Your task to perform on an android device: toggle notification dots Image 0: 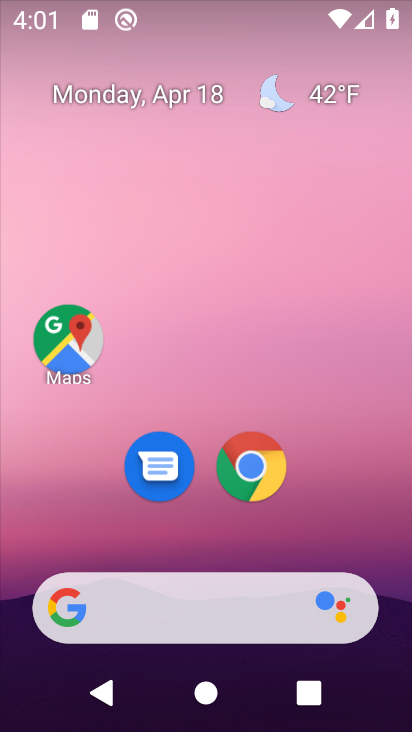
Step 0: drag from (390, 576) to (357, 46)
Your task to perform on an android device: toggle notification dots Image 1: 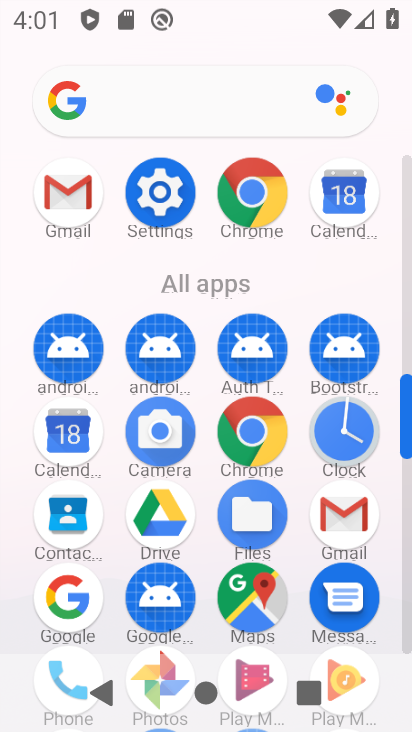
Step 1: click (401, 635)
Your task to perform on an android device: toggle notification dots Image 2: 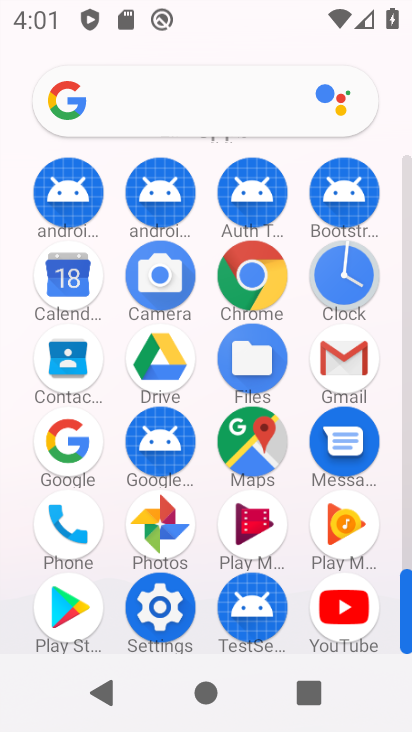
Step 2: click (160, 606)
Your task to perform on an android device: toggle notification dots Image 3: 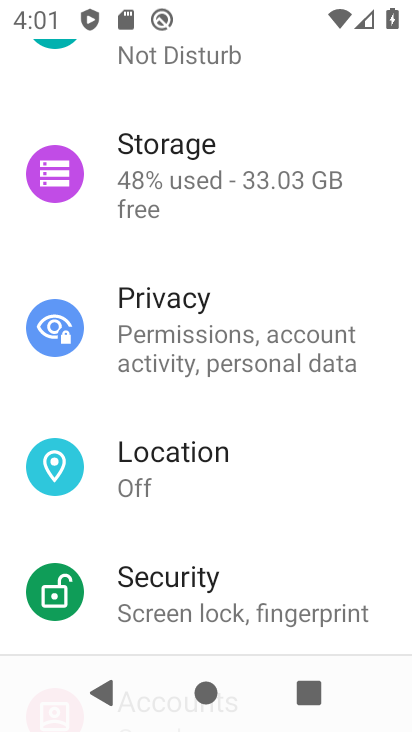
Step 3: drag from (371, 328) to (342, 584)
Your task to perform on an android device: toggle notification dots Image 4: 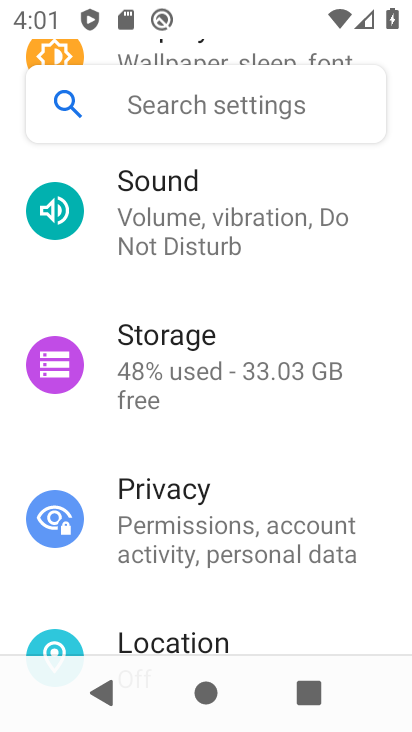
Step 4: drag from (359, 281) to (335, 531)
Your task to perform on an android device: toggle notification dots Image 5: 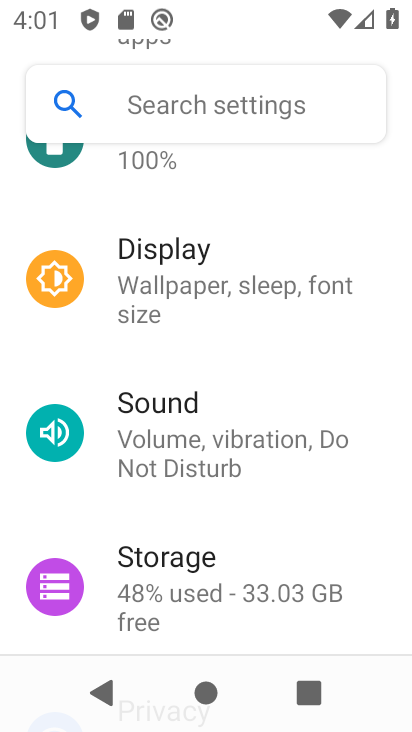
Step 5: drag from (359, 250) to (355, 458)
Your task to perform on an android device: toggle notification dots Image 6: 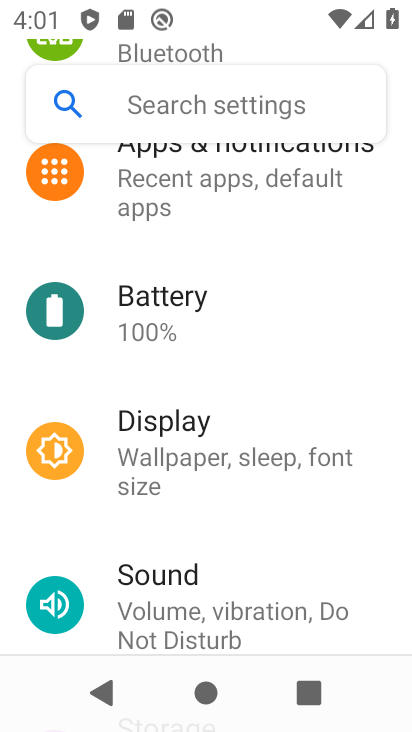
Step 6: drag from (347, 212) to (336, 419)
Your task to perform on an android device: toggle notification dots Image 7: 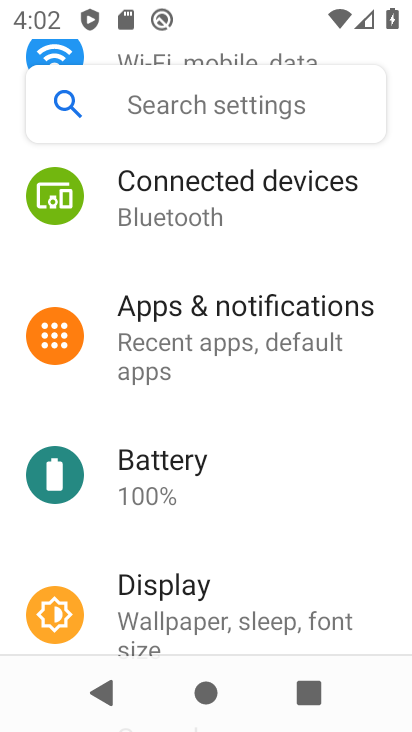
Step 7: click (150, 316)
Your task to perform on an android device: toggle notification dots Image 8: 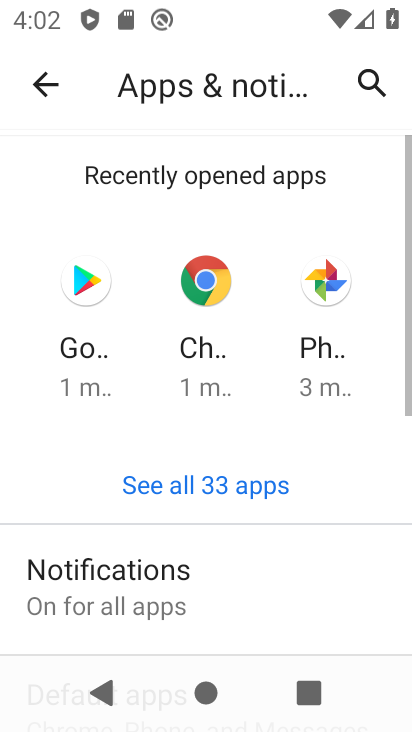
Step 8: drag from (318, 592) to (367, 196)
Your task to perform on an android device: toggle notification dots Image 9: 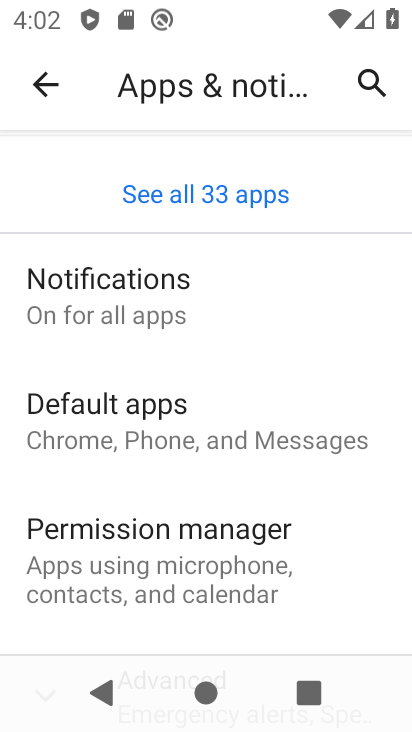
Step 9: click (74, 297)
Your task to perform on an android device: toggle notification dots Image 10: 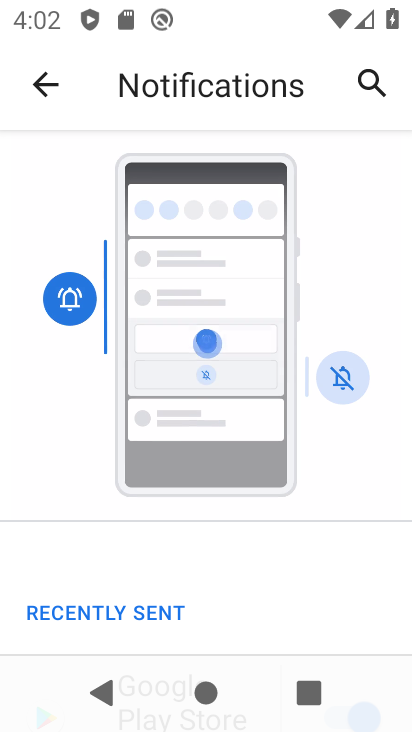
Step 10: drag from (274, 570) to (258, 274)
Your task to perform on an android device: toggle notification dots Image 11: 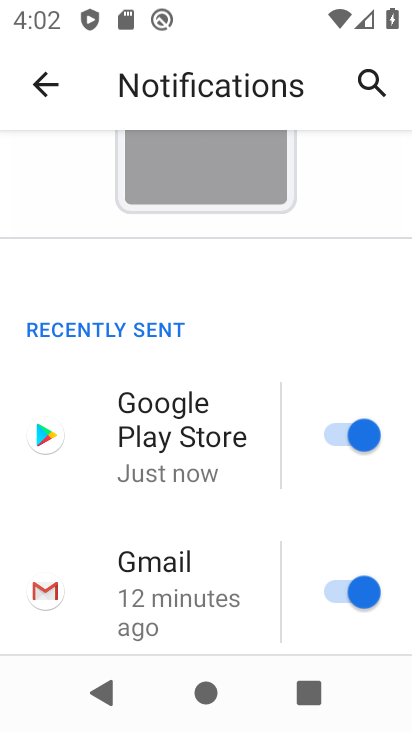
Step 11: drag from (288, 688) to (268, 91)
Your task to perform on an android device: toggle notification dots Image 12: 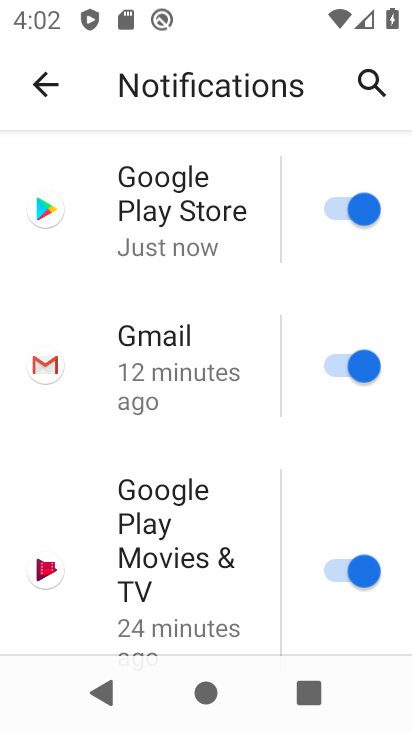
Step 12: drag from (274, 544) to (249, 115)
Your task to perform on an android device: toggle notification dots Image 13: 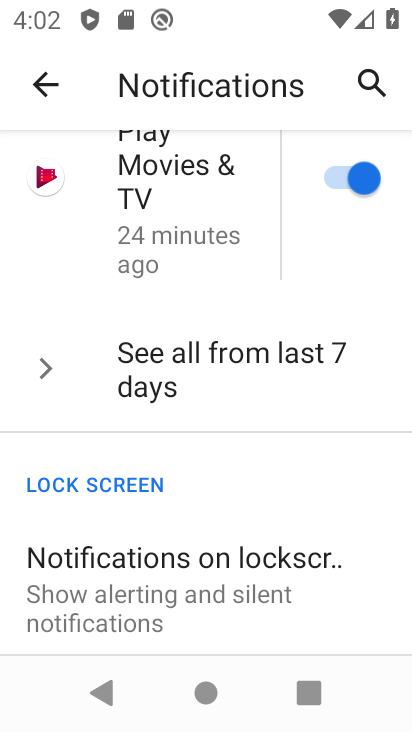
Step 13: drag from (262, 515) to (281, 125)
Your task to perform on an android device: toggle notification dots Image 14: 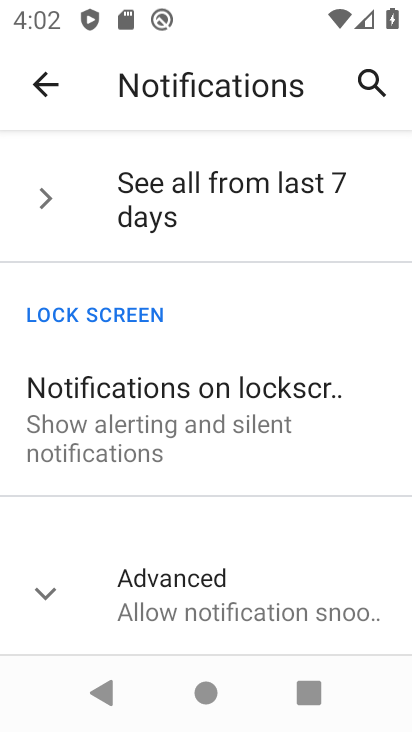
Step 14: drag from (294, 461) to (274, 194)
Your task to perform on an android device: toggle notification dots Image 15: 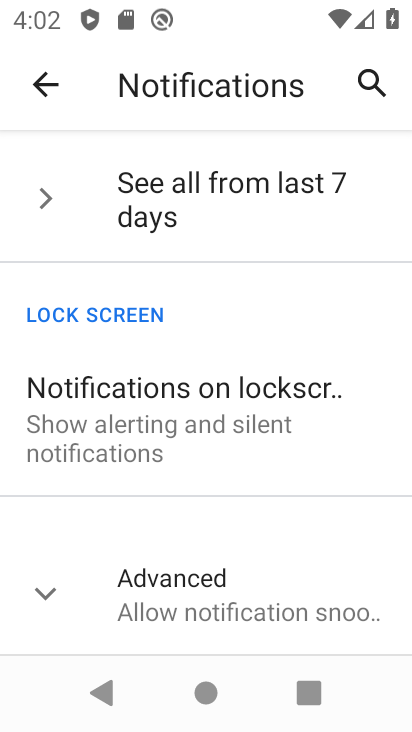
Step 15: click (45, 592)
Your task to perform on an android device: toggle notification dots Image 16: 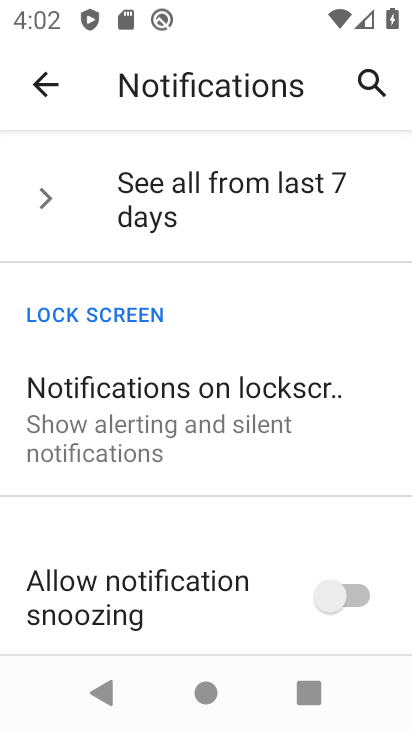
Step 16: drag from (219, 609) to (280, 93)
Your task to perform on an android device: toggle notification dots Image 17: 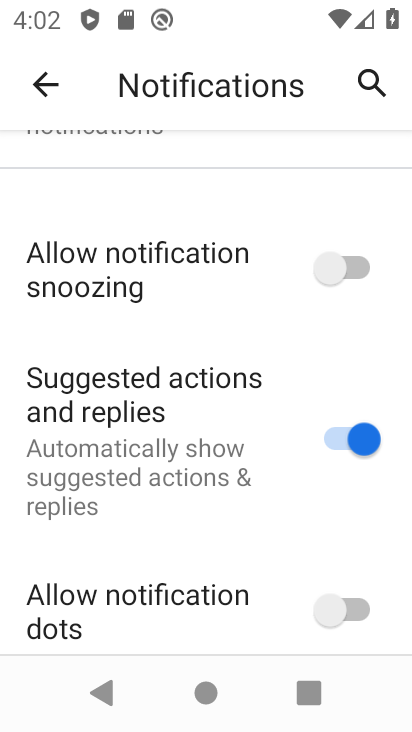
Step 17: drag from (273, 559) to (273, 165)
Your task to perform on an android device: toggle notification dots Image 18: 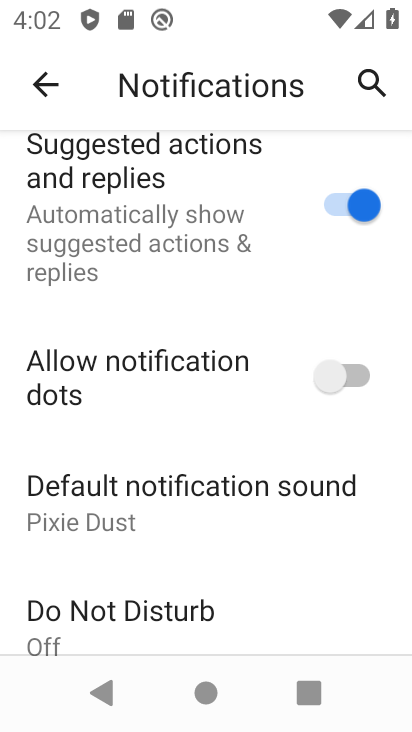
Step 18: click (358, 380)
Your task to perform on an android device: toggle notification dots Image 19: 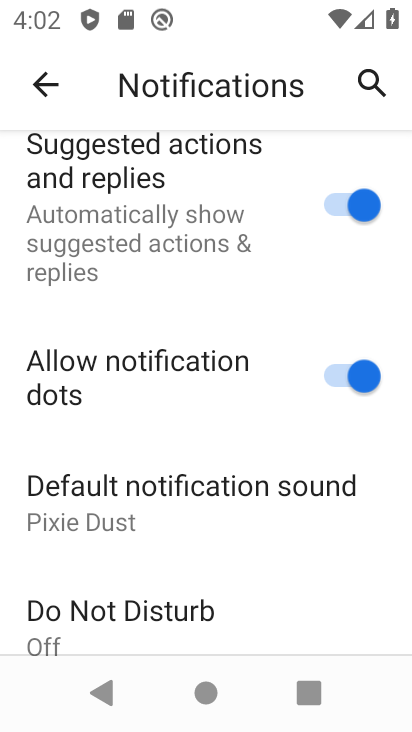
Step 19: task complete